Your task to perform on an android device: open app "Adobe Acrobat Reader" (install if not already installed) and go to login screen Image 0: 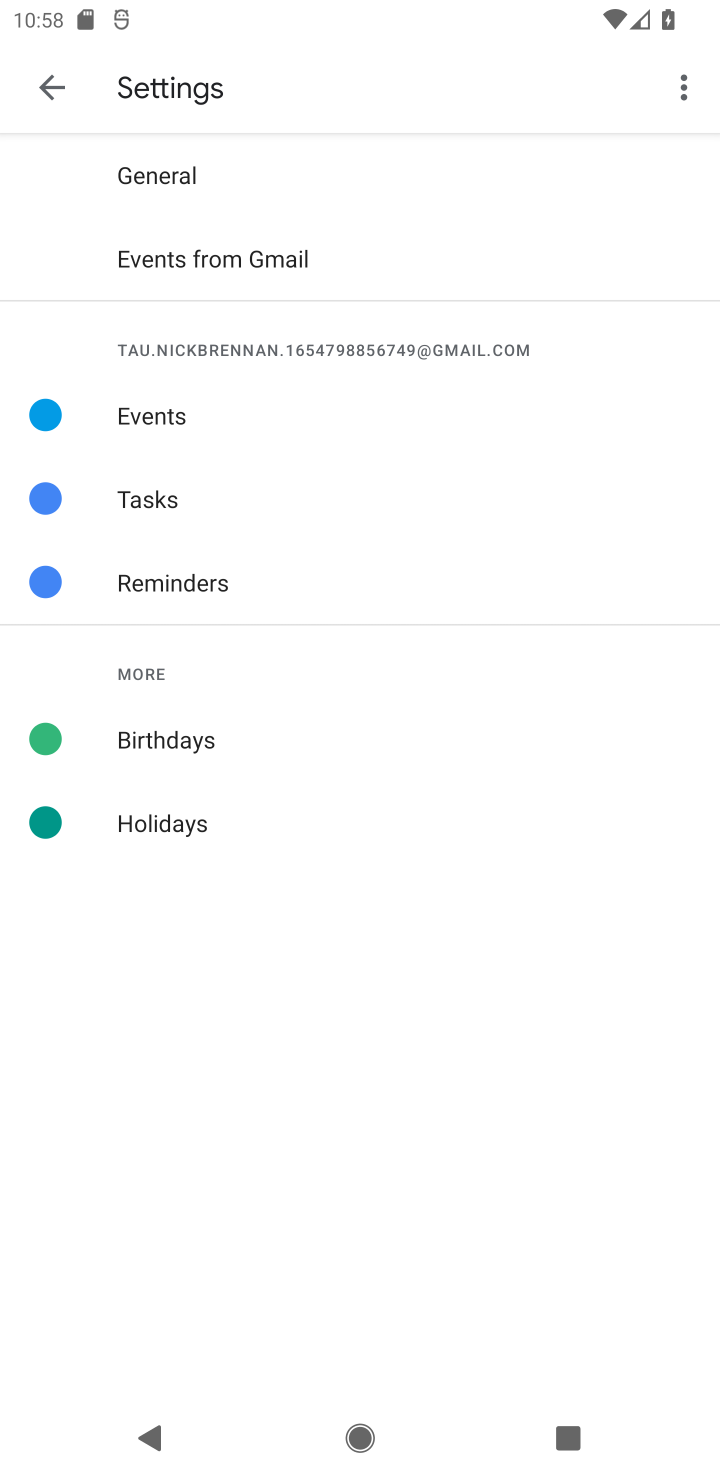
Step 0: click (33, 86)
Your task to perform on an android device: open app "Adobe Acrobat Reader" (install if not already installed) and go to login screen Image 1: 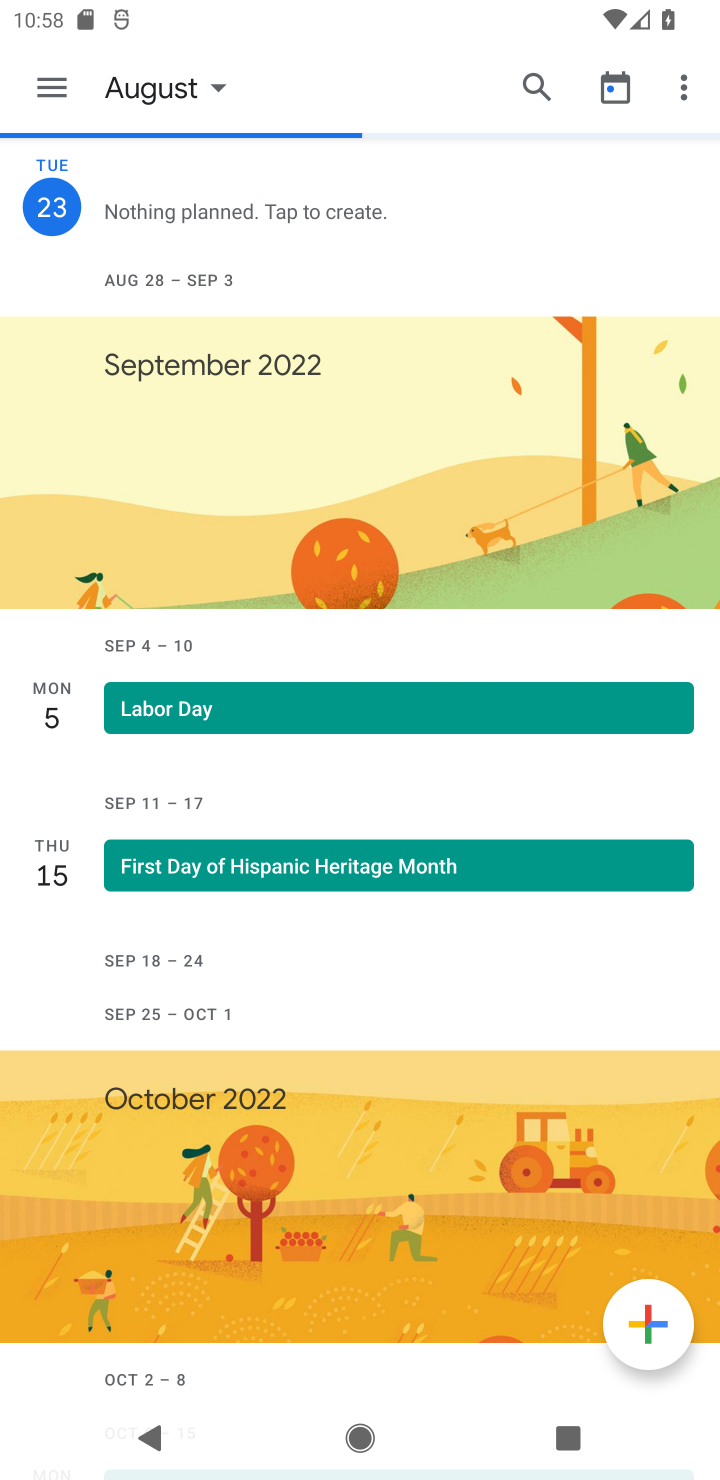
Step 1: press home button
Your task to perform on an android device: open app "Adobe Acrobat Reader" (install if not already installed) and go to login screen Image 2: 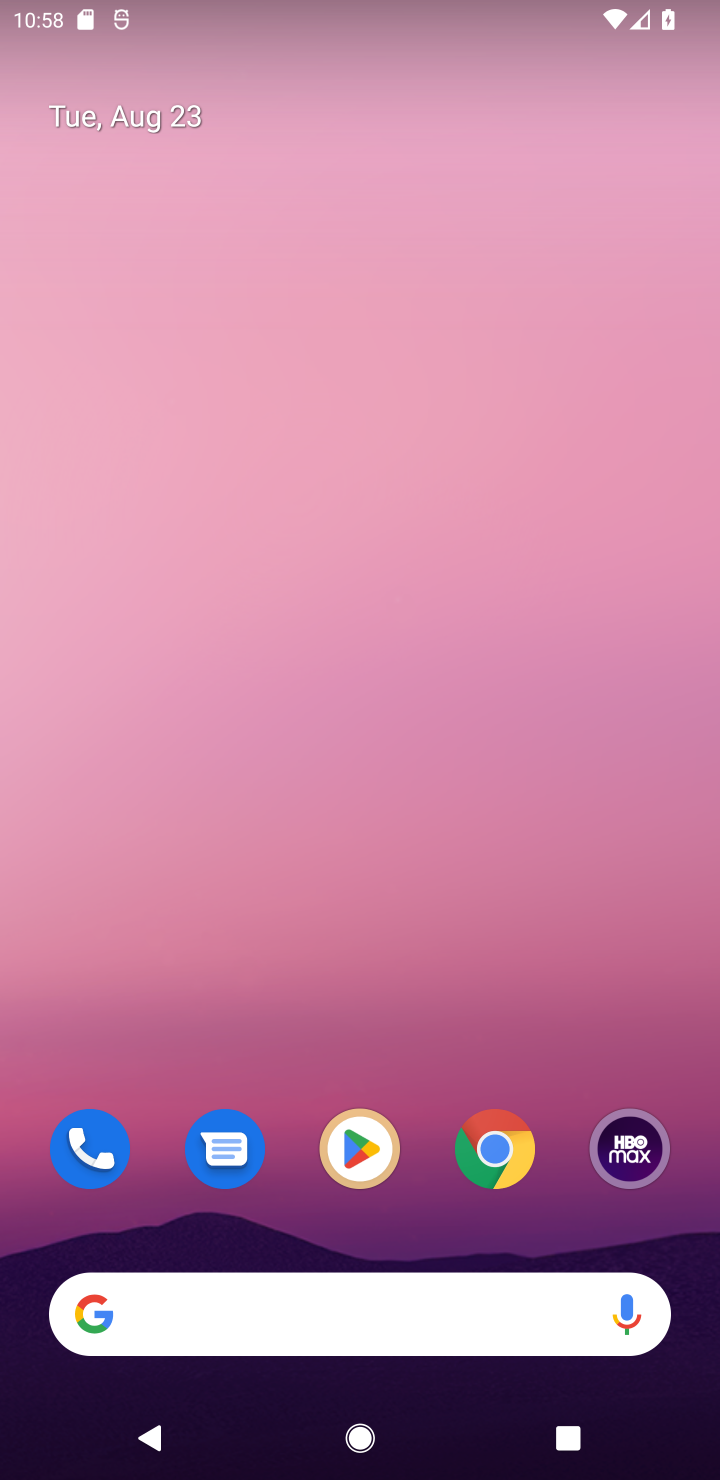
Step 2: click (342, 1154)
Your task to perform on an android device: open app "Adobe Acrobat Reader" (install if not already installed) and go to login screen Image 3: 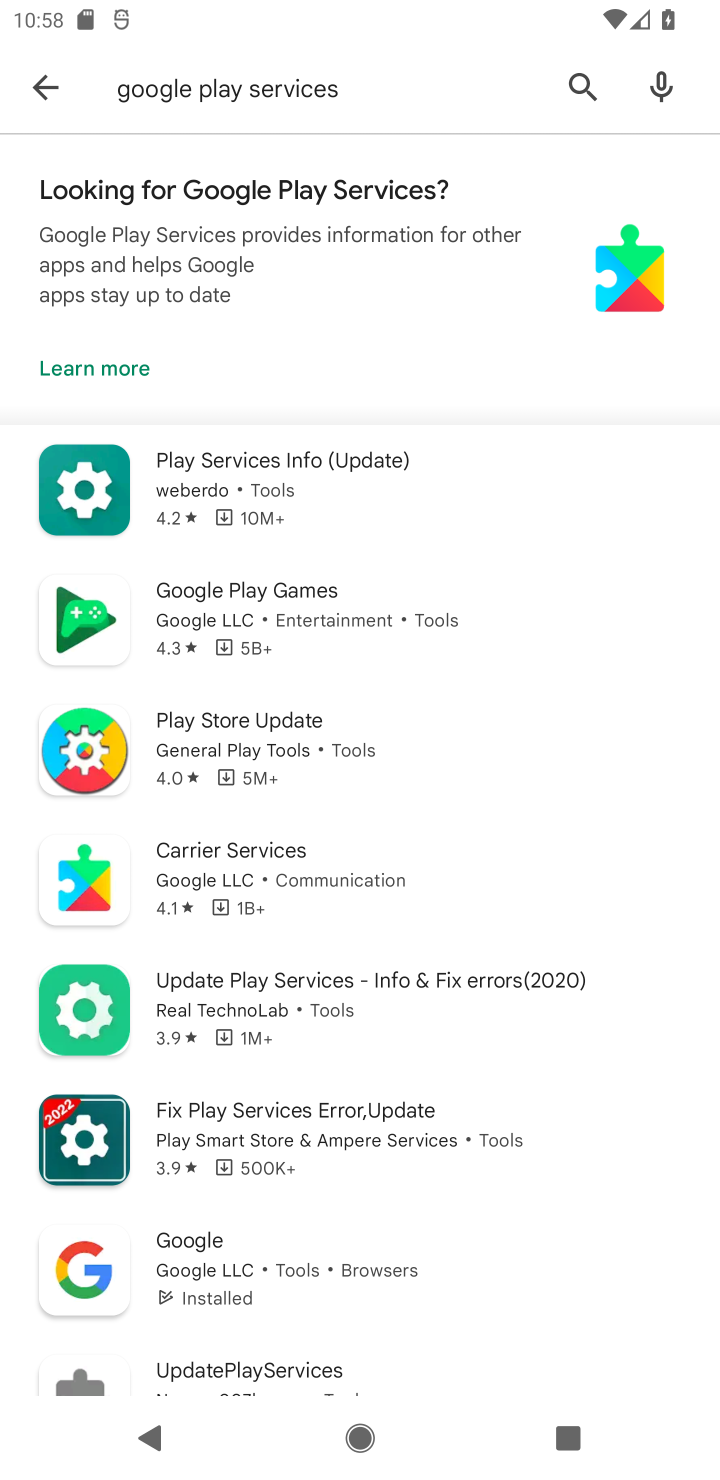
Step 3: click (576, 81)
Your task to perform on an android device: open app "Adobe Acrobat Reader" (install if not already installed) and go to login screen Image 4: 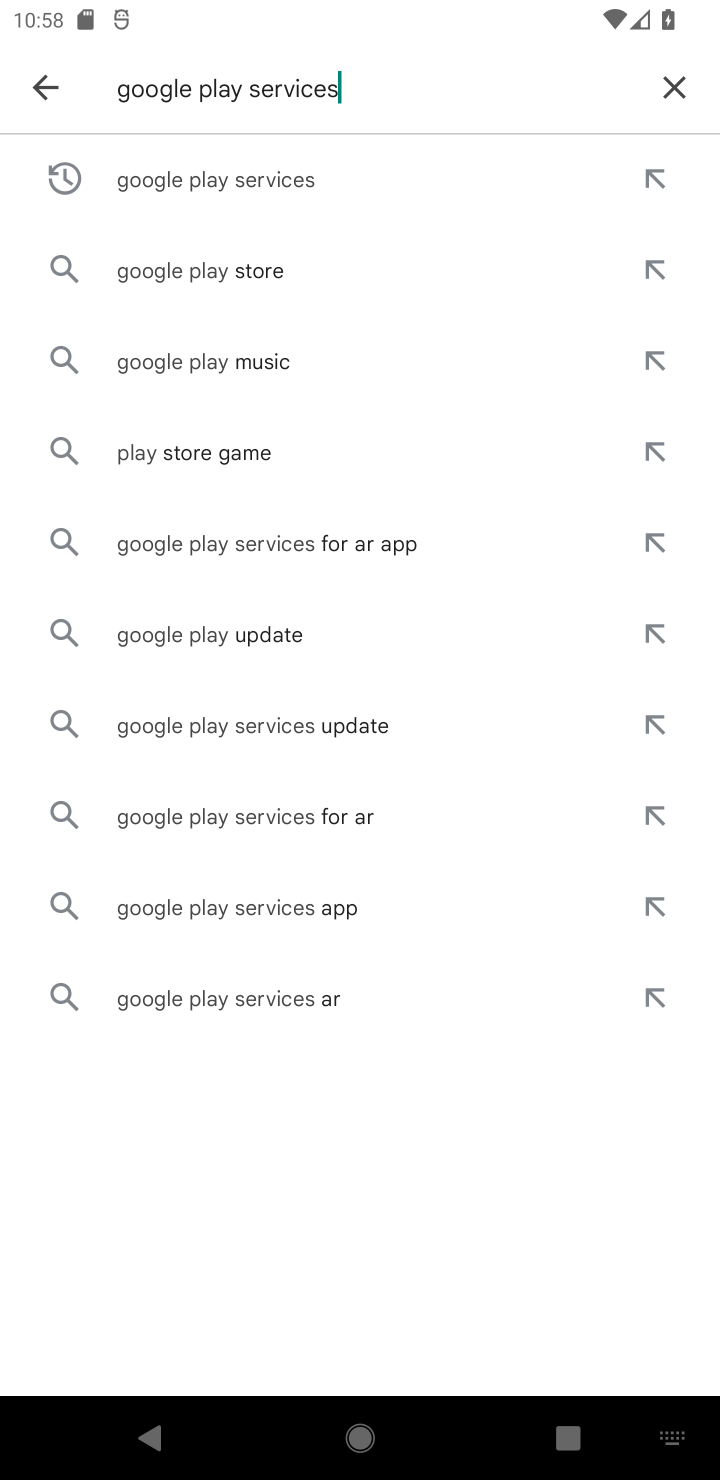
Step 4: click (674, 78)
Your task to perform on an android device: open app "Adobe Acrobat Reader" (install if not already installed) and go to login screen Image 5: 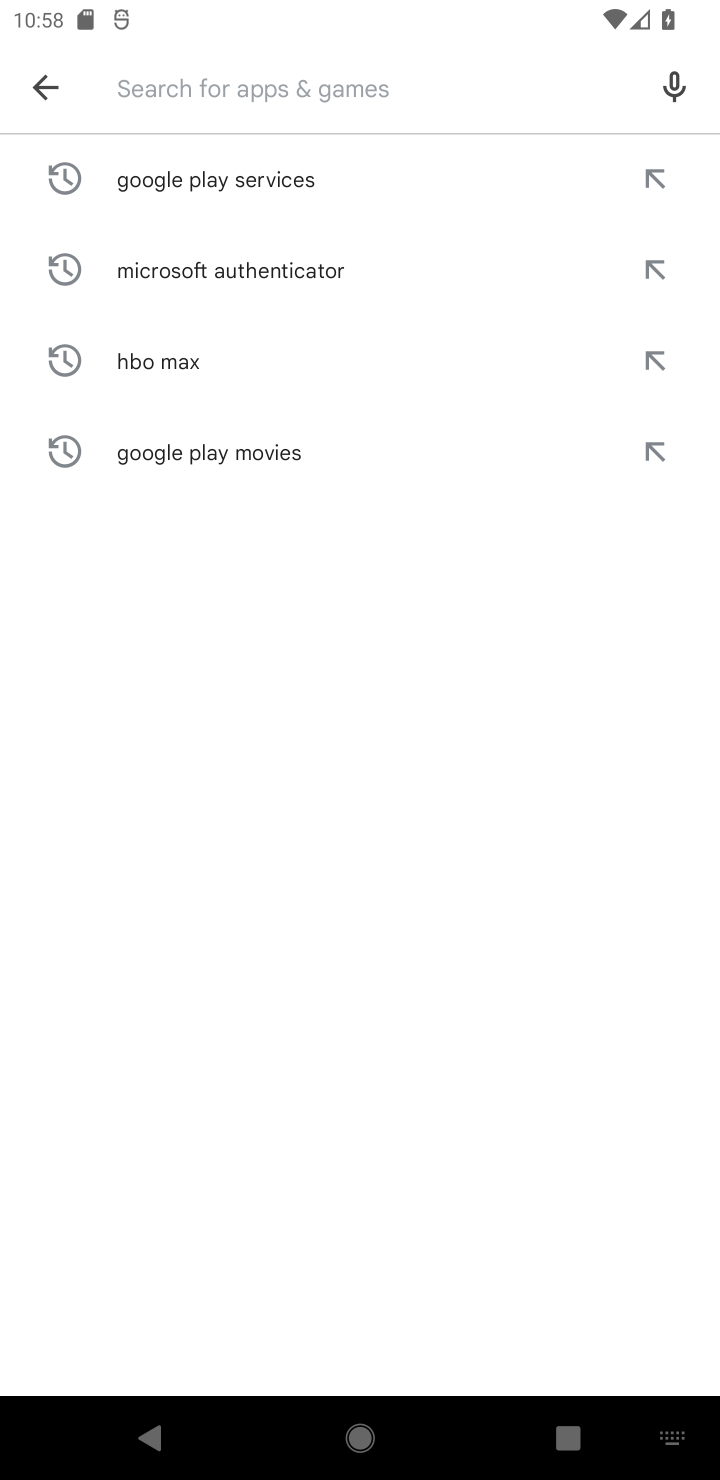
Step 5: type "adobe "
Your task to perform on an android device: open app "Adobe Acrobat Reader" (install if not already installed) and go to login screen Image 6: 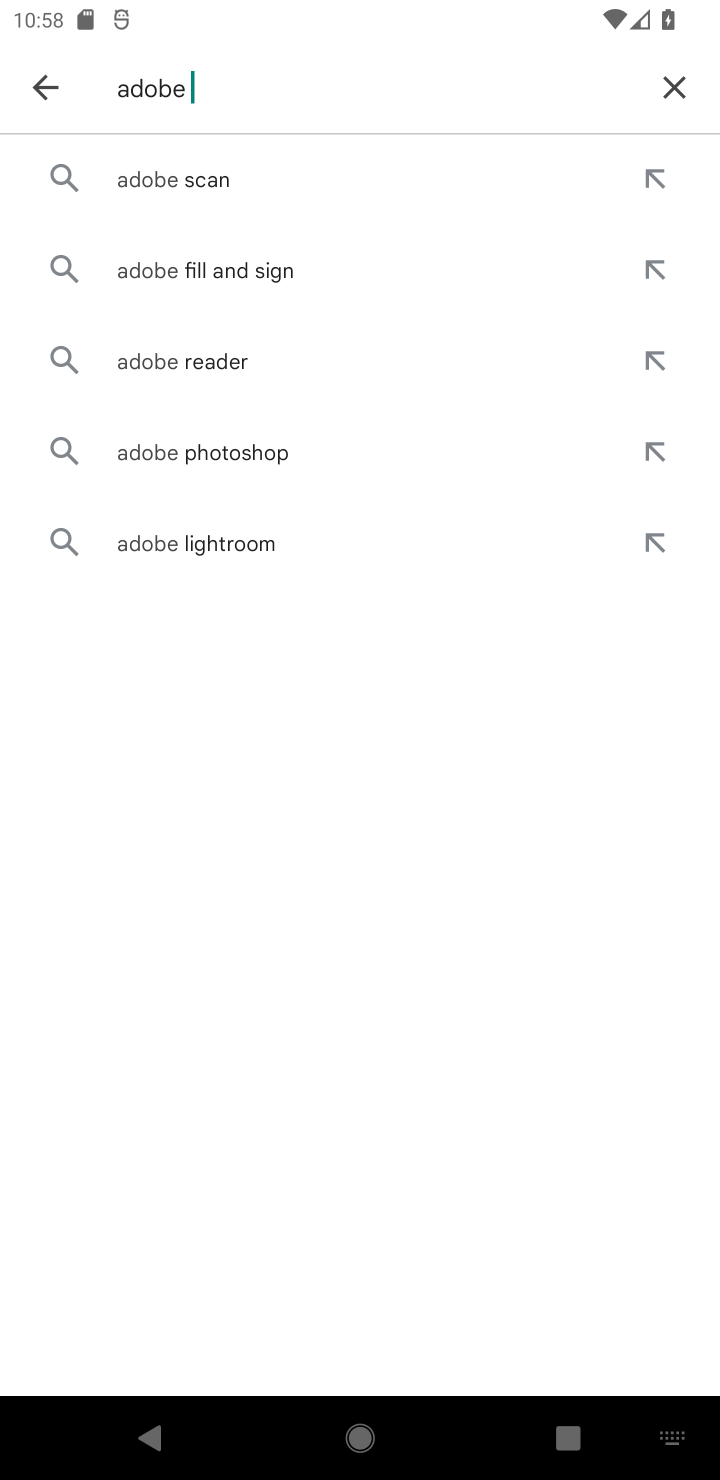
Step 6: click (238, 179)
Your task to perform on an android device: open app "Adobe Acrobat Reader" (install if not already installed) and go to login screen Image 7: 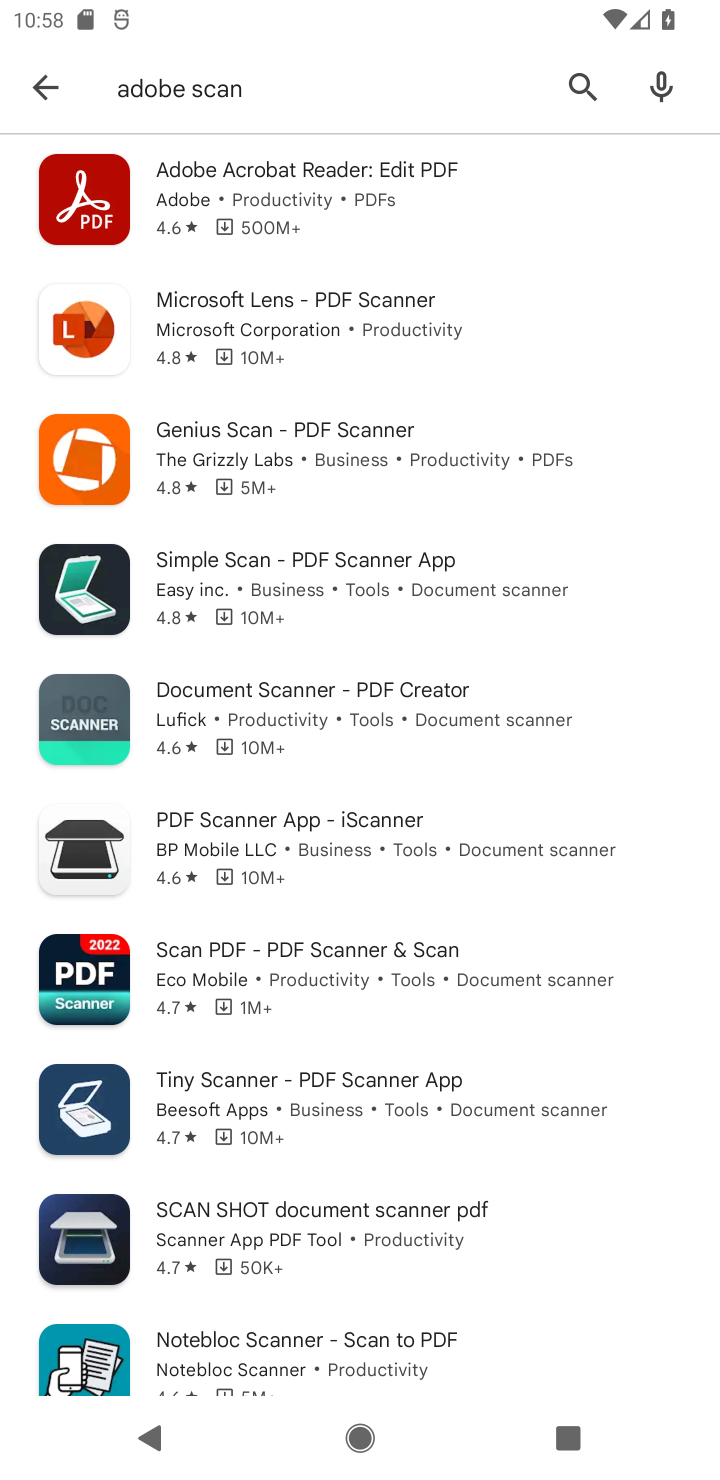
Step 7: click (288, 180)
Your task to perform on an android device: open app "Adobe Acrobat Reader" (install if not already installed) and go to login screen Image 8: 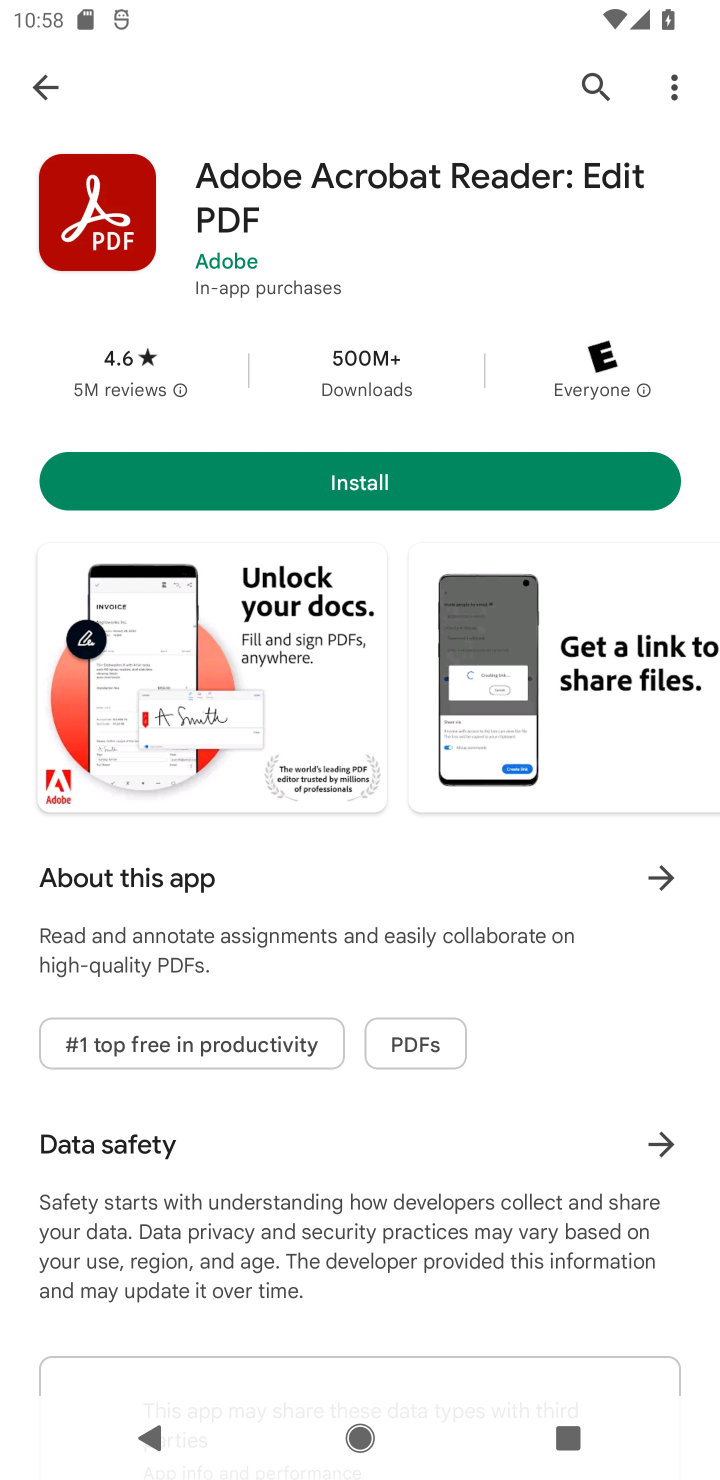
Step 8: click (480, 479)
Your task to perform on an android device: open app "Adobe Acrobat Reader" (install if not already installed) and go to login screen Image 9: 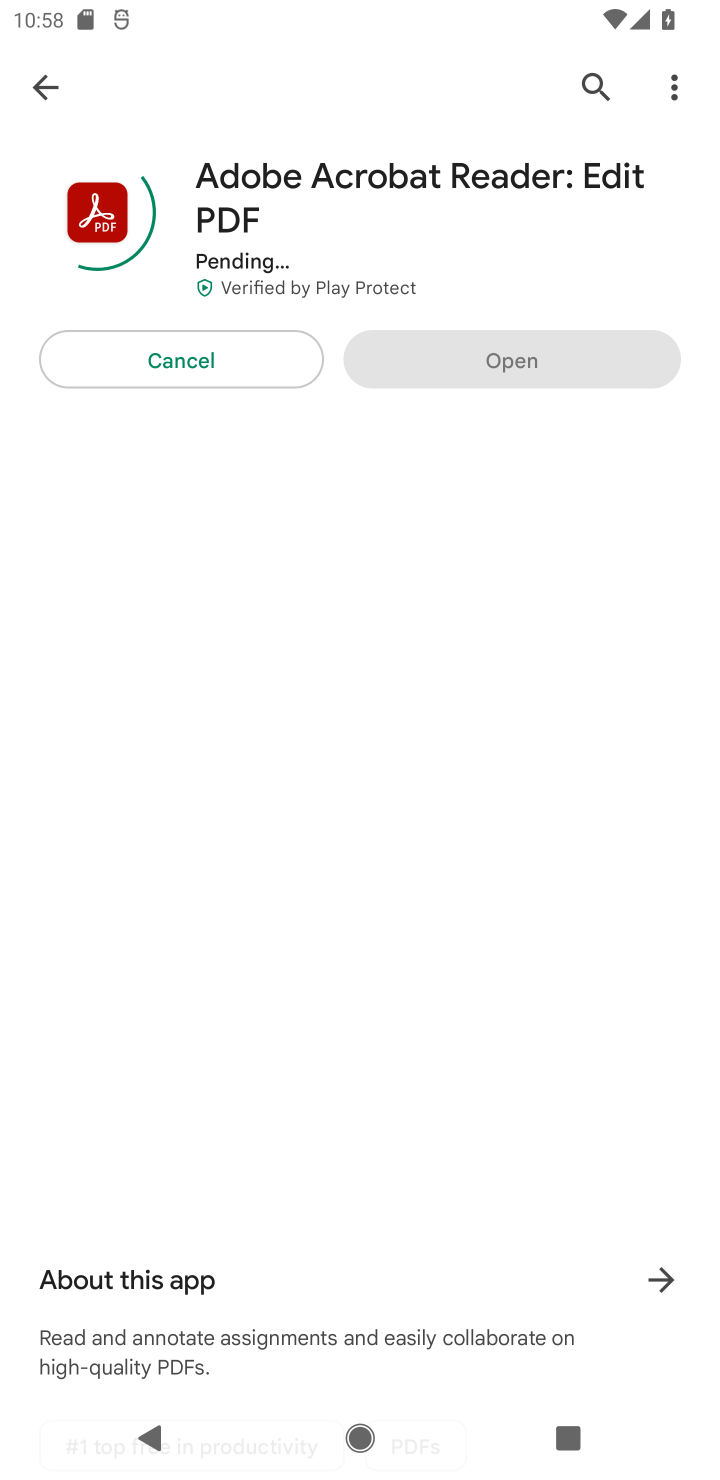
Step 9: task complete